Your task to perform on an android device: Open Wikipedia Image 0: 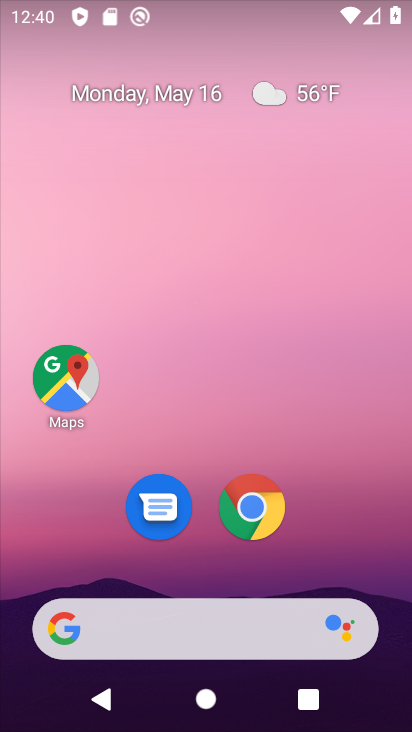
Step 0: drag from (216, 571) to (184, 123)
Your task to perform on an android device: Open Wikipedia Image 1: 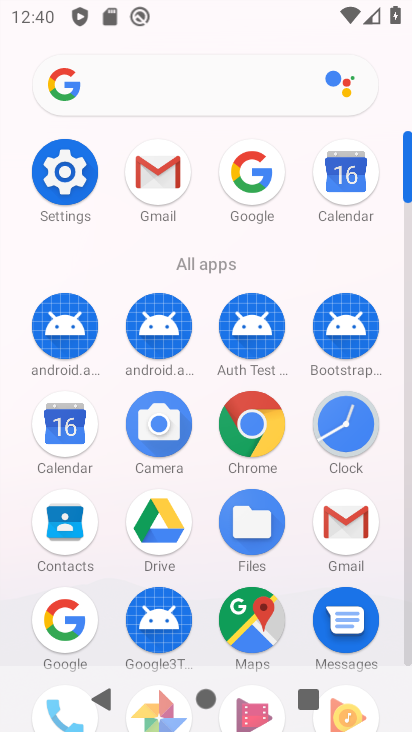
Step 1: click (244, 415)
Your task to perform on an android device: Open Wikipedia Image 2: 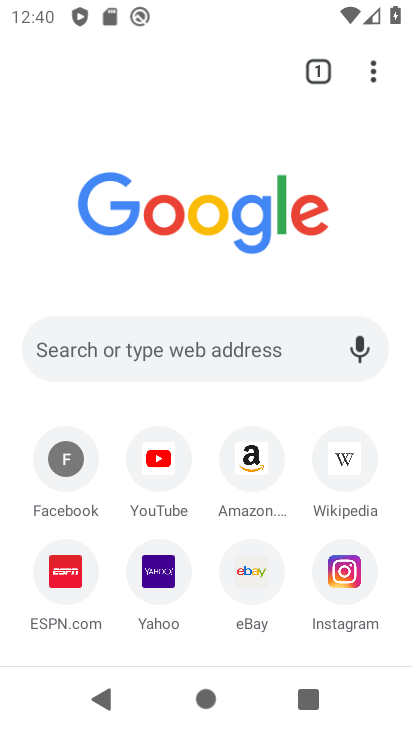
Step 2: click (141, 339)
Your task to perform on an android device: Open Wikipedia Image 3: 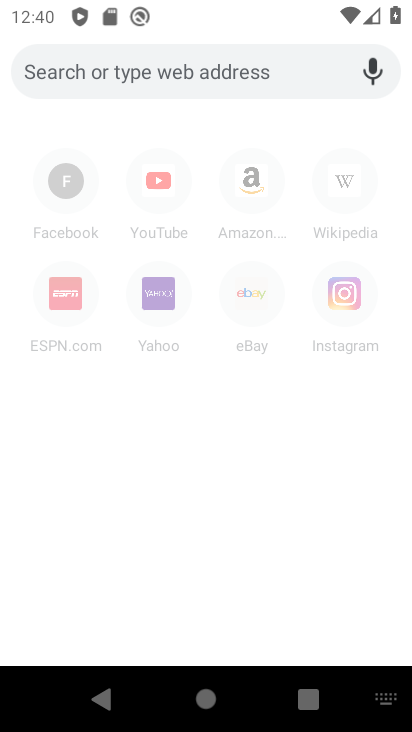
Step 3: type "Wikipedia"
Your task to perform on an android device: Open Wikipedia Image 4: 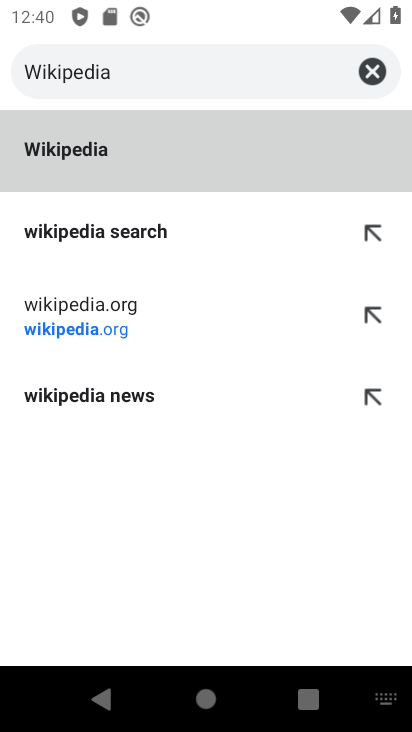
Step 4: click (95, 161)
Your task to perform on an android device: Open Wikipedia Image 5: 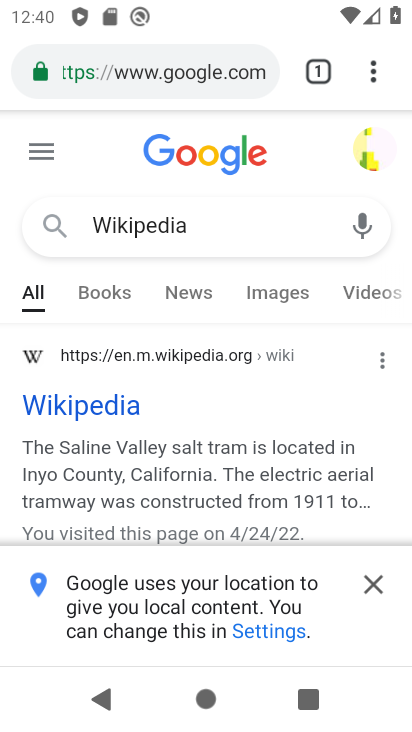
Step 5: click (75, 408)
Your task to perform on an android device: Open Wikipedia Image 6: 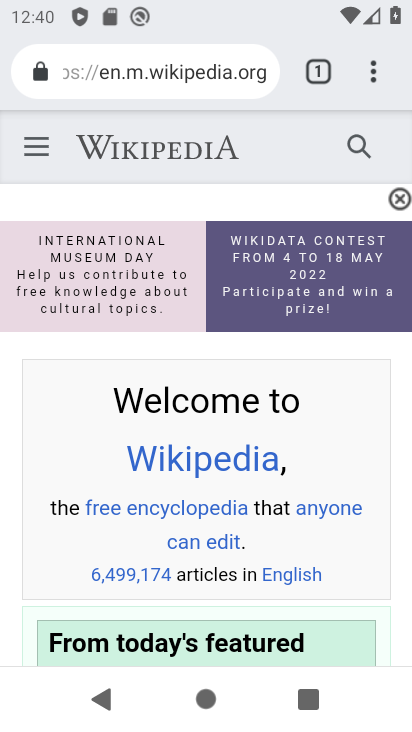
Step 6: task complete